Your task to perform on an android device: Find coffee shops on Maps Image 0: 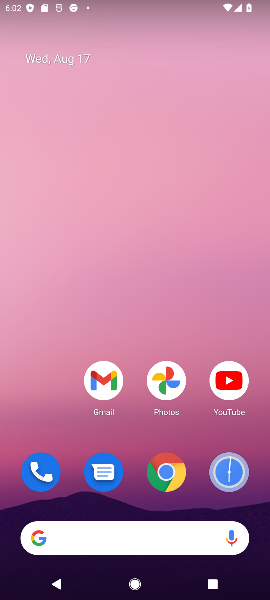
Step 0: drag from (146, 430) to (152, 76)
Your task to perform on an android device: Find coffee shops on Maps Image 1: 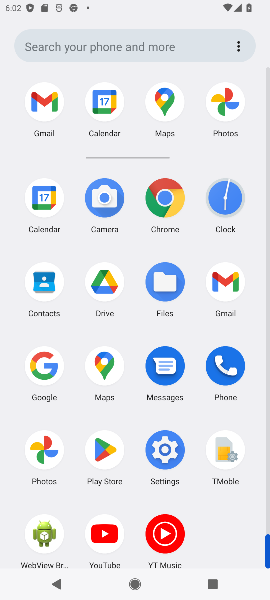
Step 1: click (167, 109)
Your task to perform on an android device: Find coffee shops on Maps Image 2: 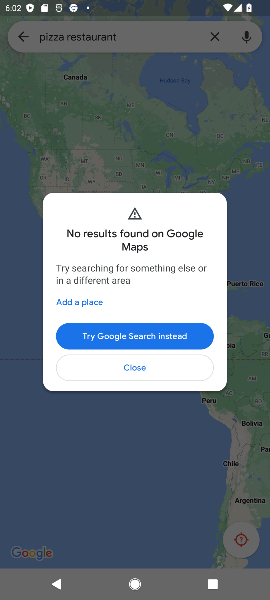
Step 2: click (136, 364)
Your task to perform on an android device: Find coffee shops on Maps Image 3: 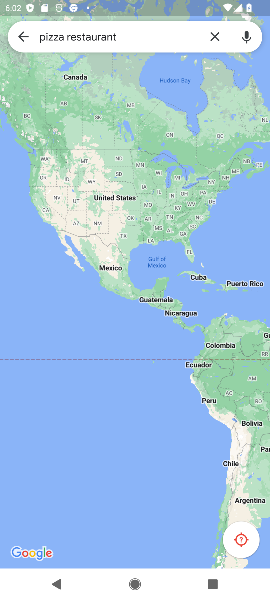
Step 3: click (208, 33)
Your task to perform on an android device: Find coffee shops on Maps Image 4: 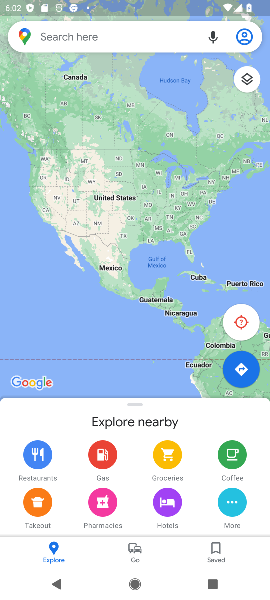
Step 4: click (132, 32)
Your task to perform on an android device: Find coffee shops on Maps Image 5: 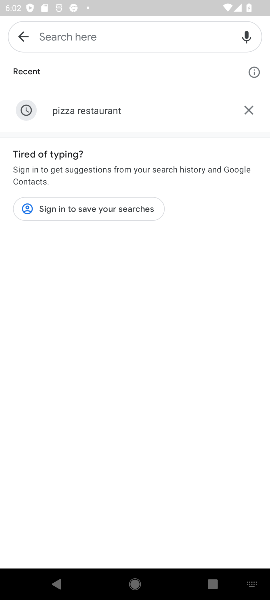
Step 5: type "coffee shops"
Your task to perform on an android device: Find coffee shops on Maps Image 6: 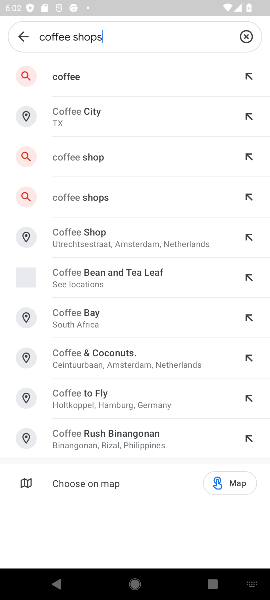
Step 6: type ""
Your task to perform on an android device: Find coffee shops on Maps Image 7: 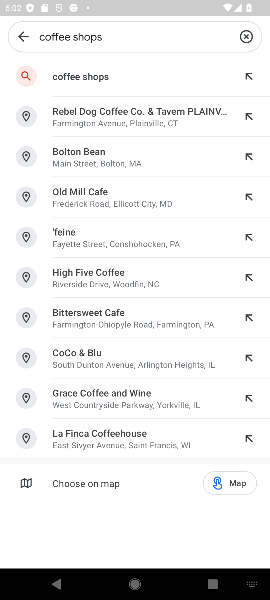
Step 7: click (91, 77)
Your task to perform on an android device: Find coffee shops on Maps Image 8: 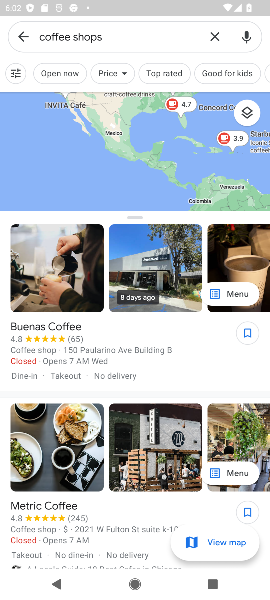
Step 8: task complete